Your task to perform on an android device: allow cookies in the chrome app Image 0: 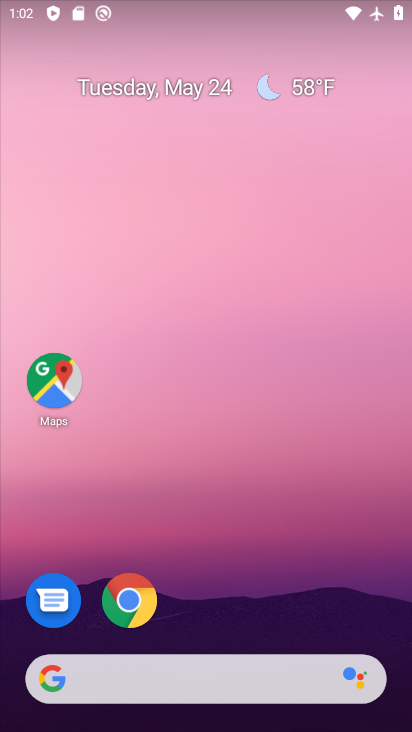
Step 0: click (130, 599)
Your task to perform on an android device: allow cookies in the chrome app Image 1: 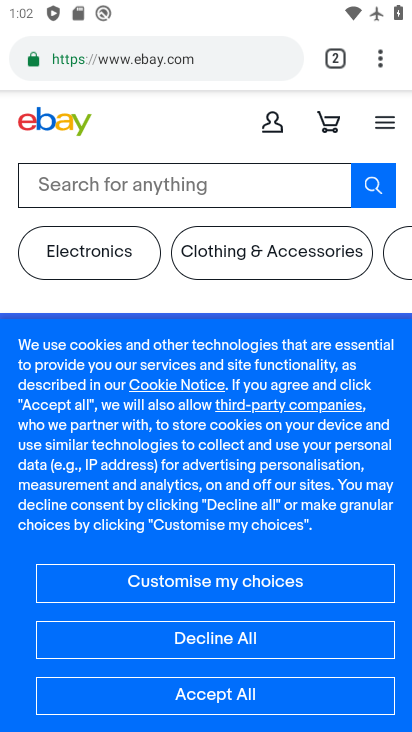
Step 1: click (377, 59)
Your task to perform on an android device: allow cookies in the chrome app Image 2: 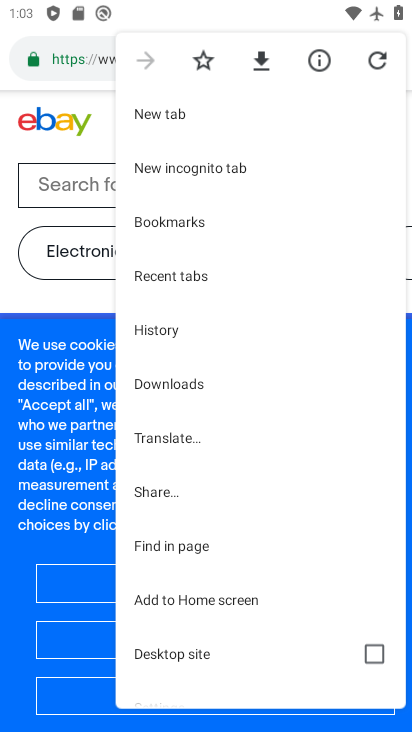
Step 2: drag from (264, 629) to (284, 236)
Your task to perform on an android device: allow cookies in the chrome app Image 3: 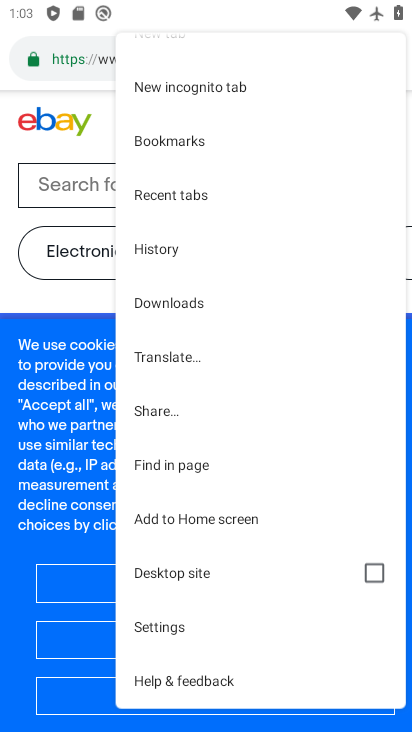
Step 3: click (222, 622)
Your task to perform on an android device: allow cookies in the chrome app Image 4: 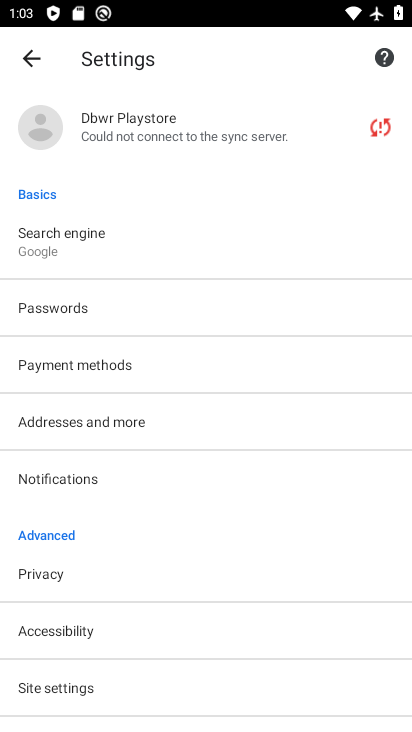
Step 4: drag from (208, 546) to (218, 132)
Your task to perform on an android device: allow cookies in the chrome app Image 5: 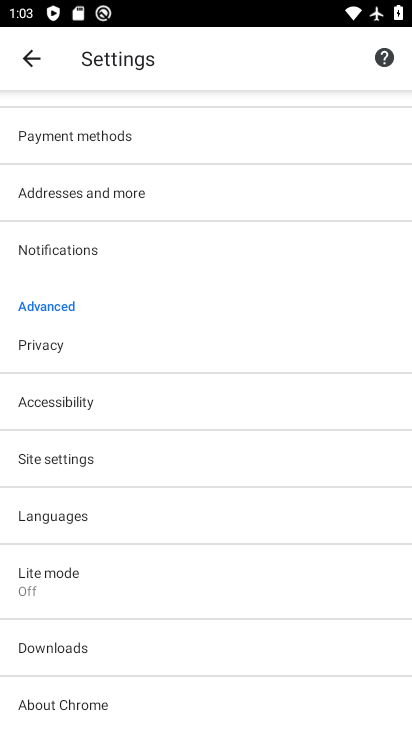
Step 5: click (152, 460)
Your task to perform on an android device: allow cookies in the chrome app Image 6: 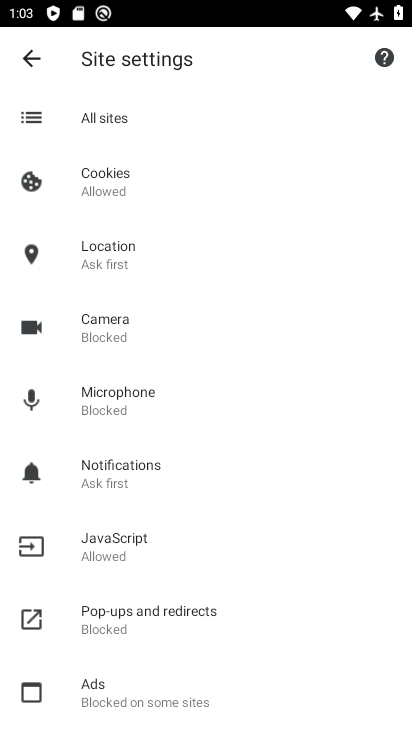
Step 6: click (167, 185)
Your task to perform on an android device: allow cookies in the chrome app Image 7: 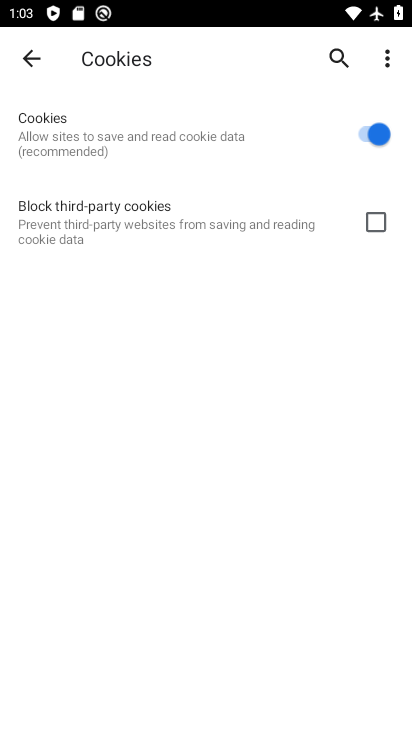
Step 7: task complete